Your task to perform on an android device: Open internet settings Image 0: 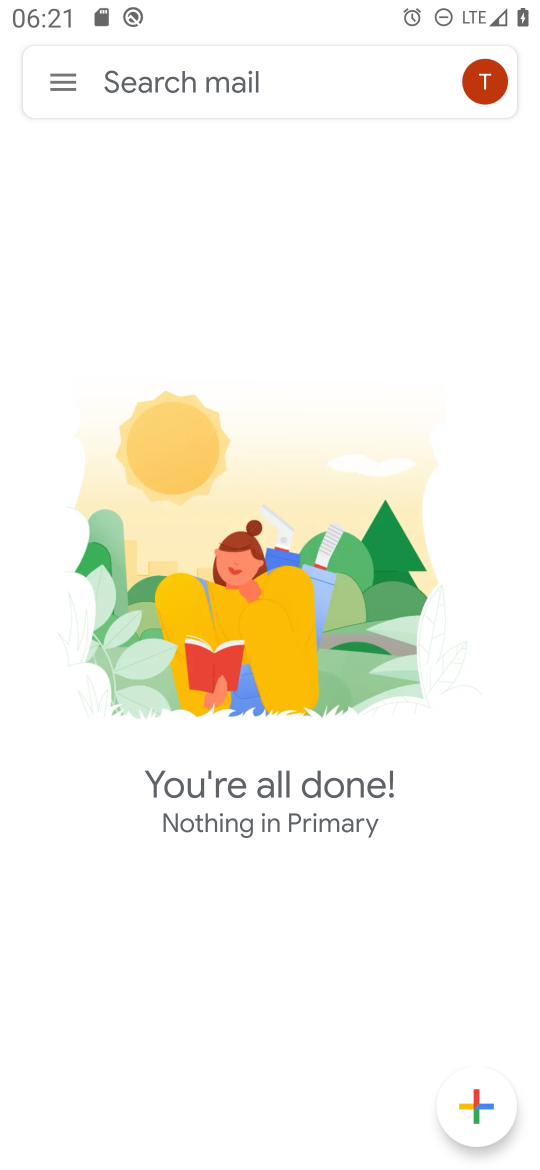
Step 0: press home button
Your task to perform on an android device: Open internet settings Image 1: 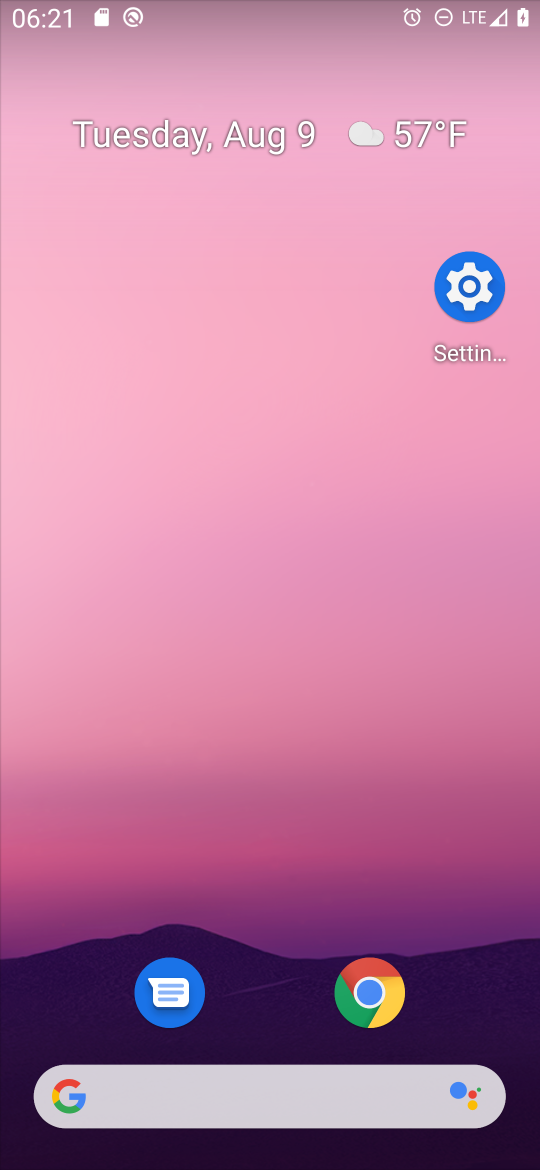
Step 1: drag from (279, 1057) to (336, 1016)
Your task to perform on an android device: Open internet settings Image 2: 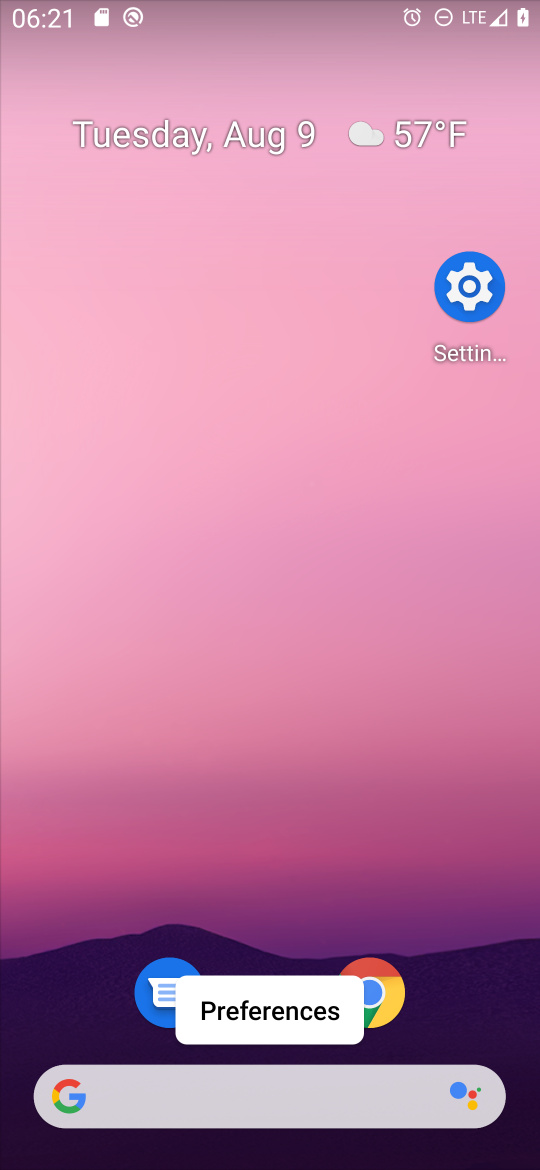
Step 2: drag from (267, 1069) to (119, 752)
Your task to perform on an android device: Open internet settings Image 3: 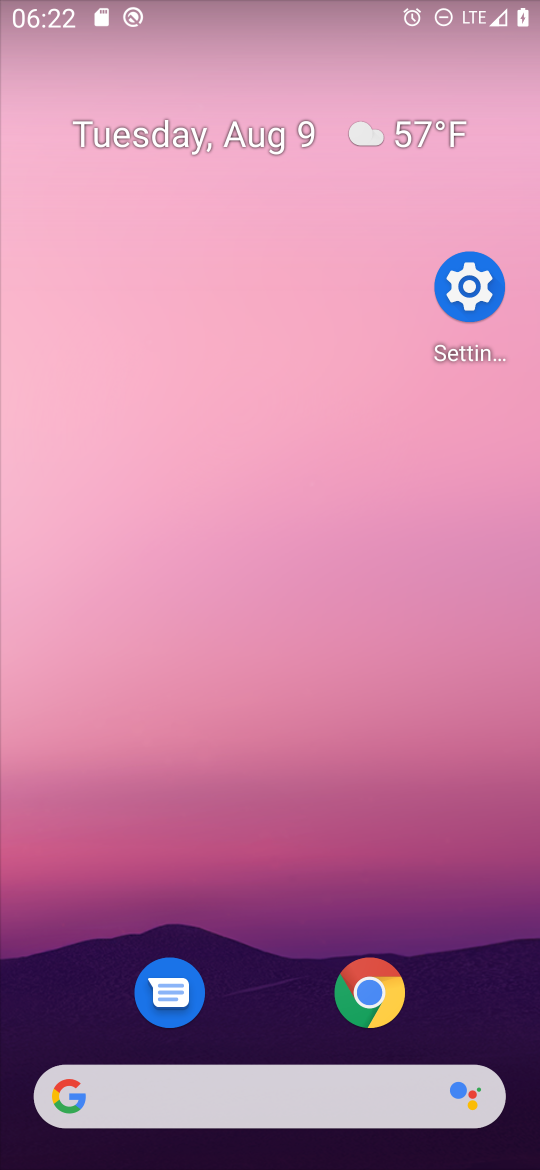
Step 3: drag from (389, 1101) to (331, 209)
Your task to perform on an android device: Open internet settings Image 4: 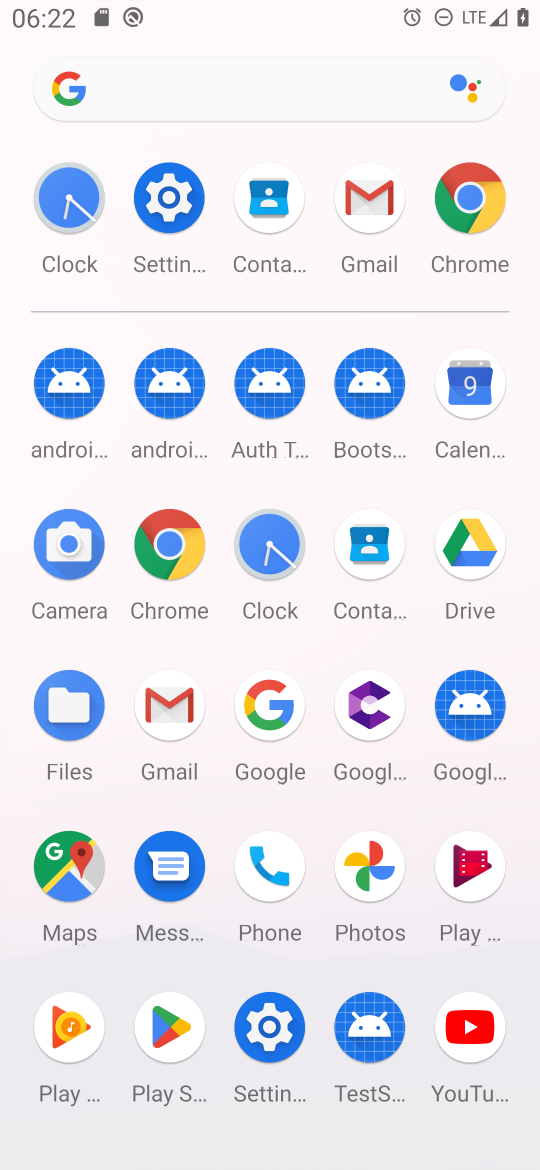
Step 4: click (148, 218)
Your task to perform on an android device: Open internet settings Image 5: 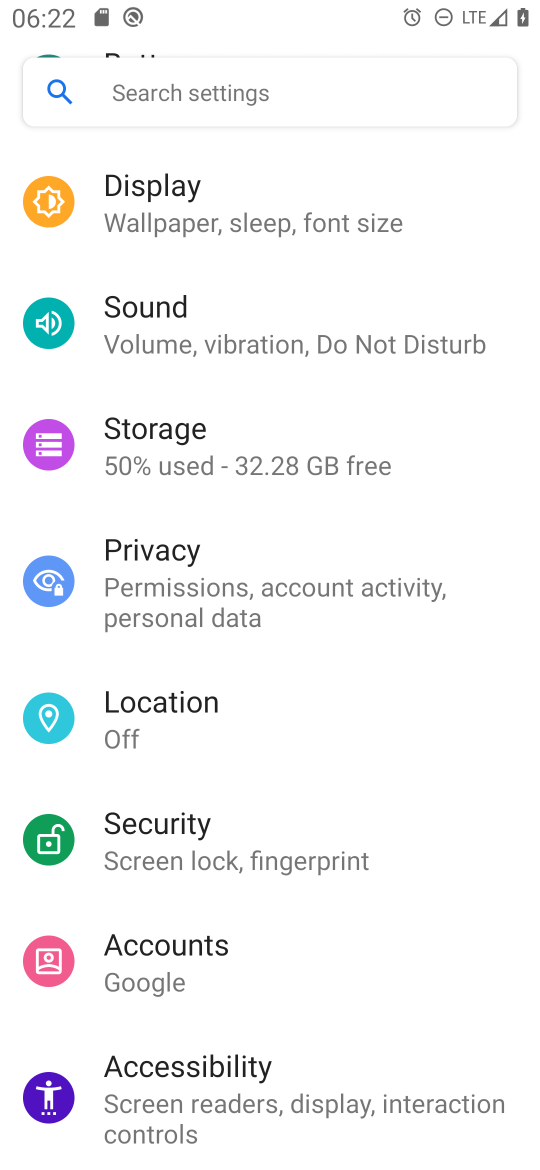
Step 5: drag from (414, 298) to (488, 936)
Your task to perform on an android device: Open internet settings Image 6: 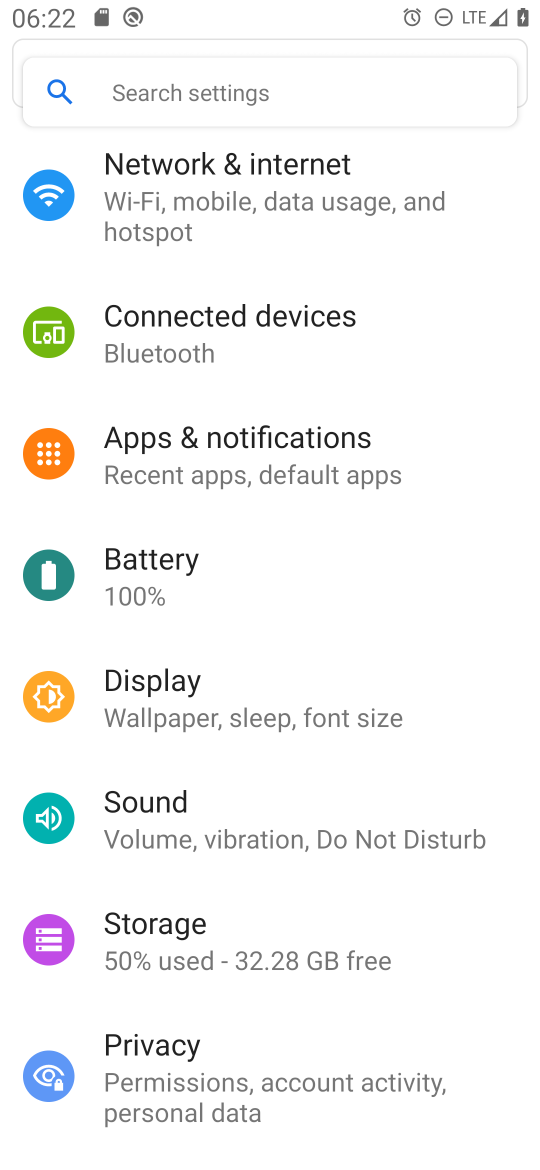
Step 6: click (308, 221)
Your task to perform on an android device: Open internet settings Image 7: 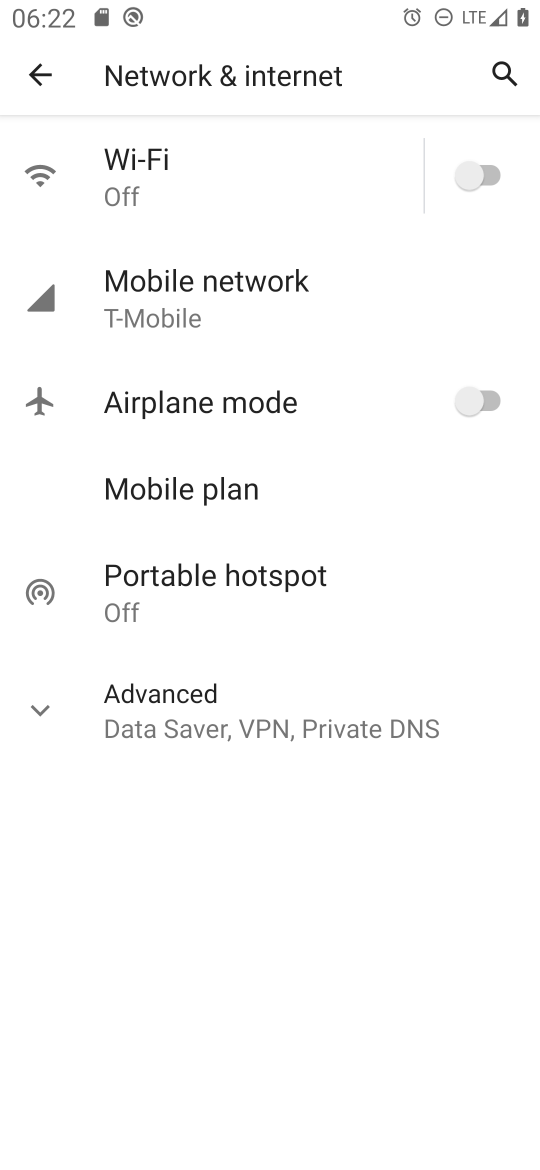
Step 7: task complete